Your task to perform on an android device: check battery use Image 0: 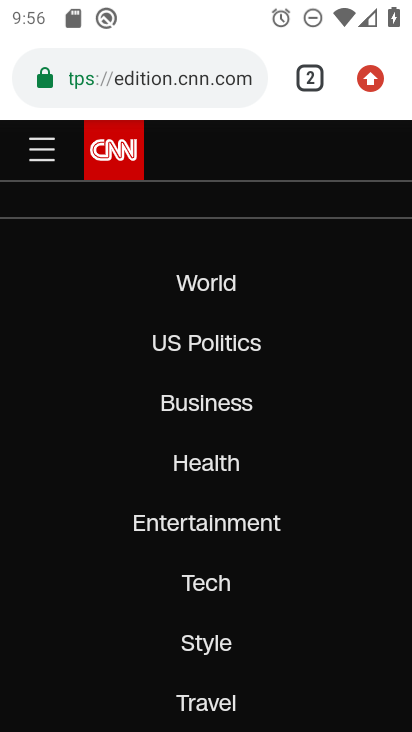
Step 0: press home button
Your task to perform on an android device: check battery use Image 1: 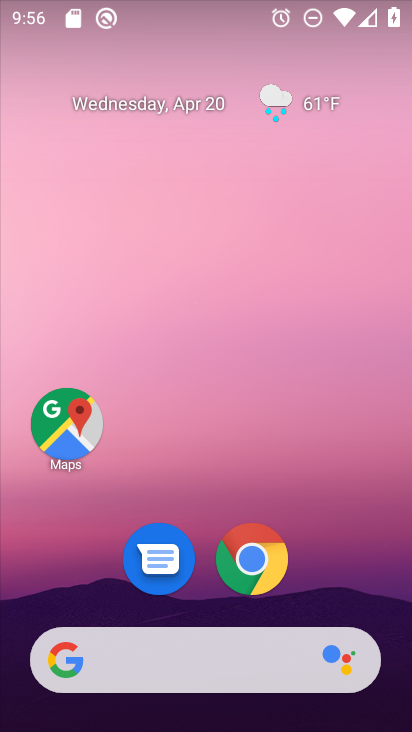
Step 1: drag from (378, 591) to (325, 160)
Your task to perform on an android device: check battery use Image 2: 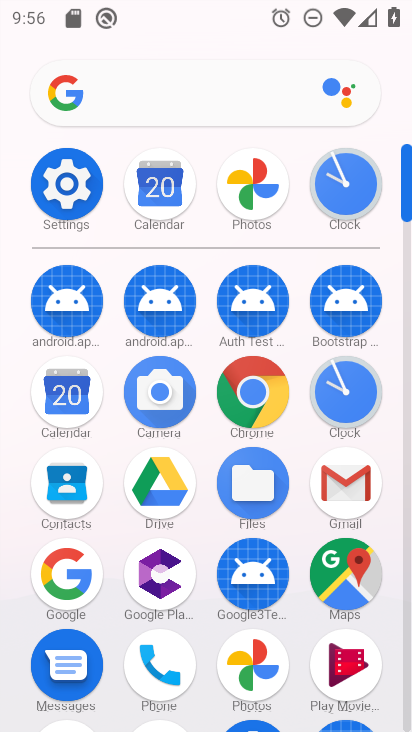
Step 2: click (409, 702)
Your task to perform on an android device: check battery use Image 3: 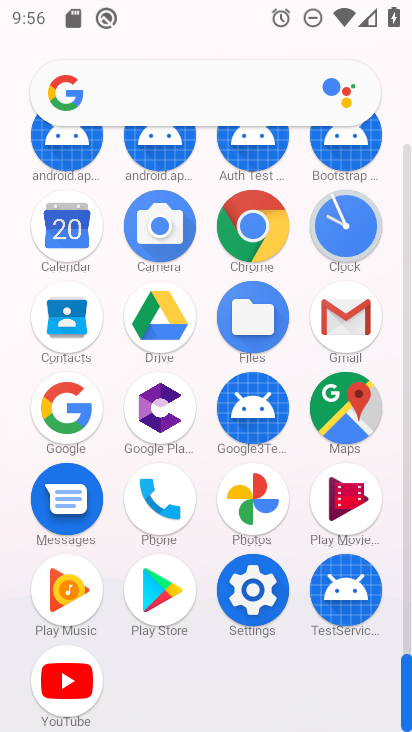
Step 3: click (252, 585)
Your task to perform on an android device: check battery use Image 4: 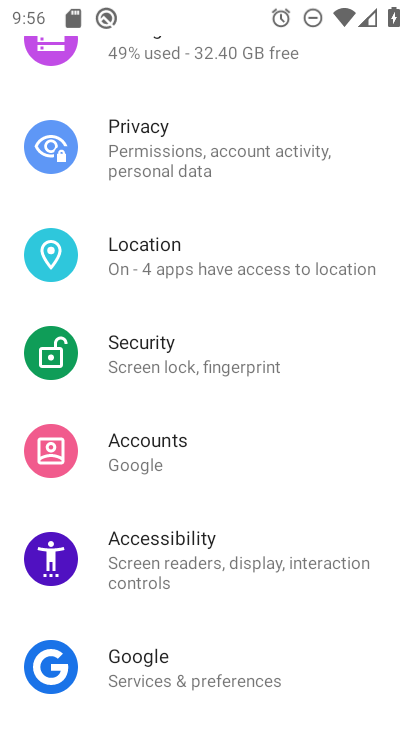
Step 4: drag from (271, 257) to (261, 459)
Your task to perform on an android device: check battery use Image 5: 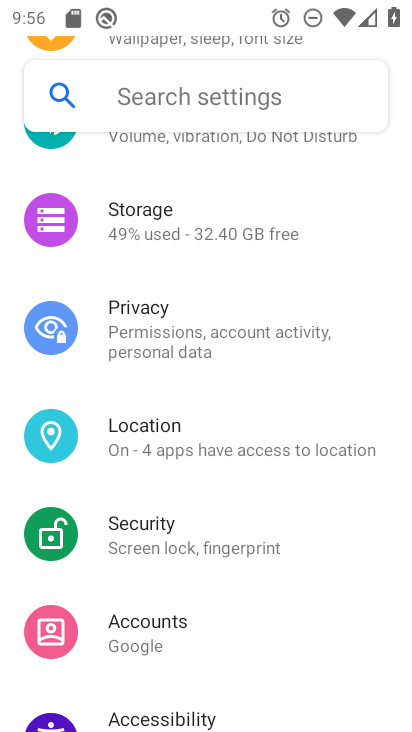
Step 5: drag from (230, 322) to (196, 552)
Your task to perform on an android device: check battery use Image 6: 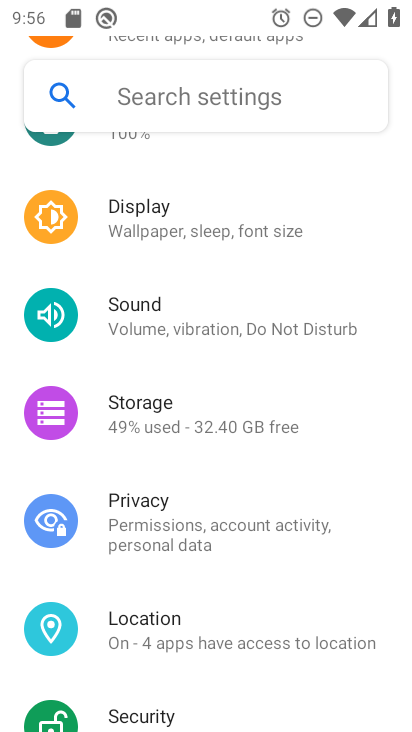
Step 6: drag from (291, 226) to (236, 469)
Your task to perform on an android device: check battery use Image 7: 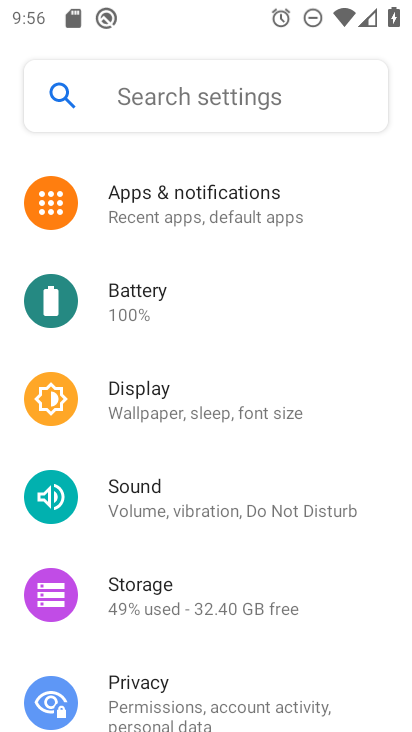
Step 7: click (135, 285)
Your task to perform on an android device: check battery use Image 8: 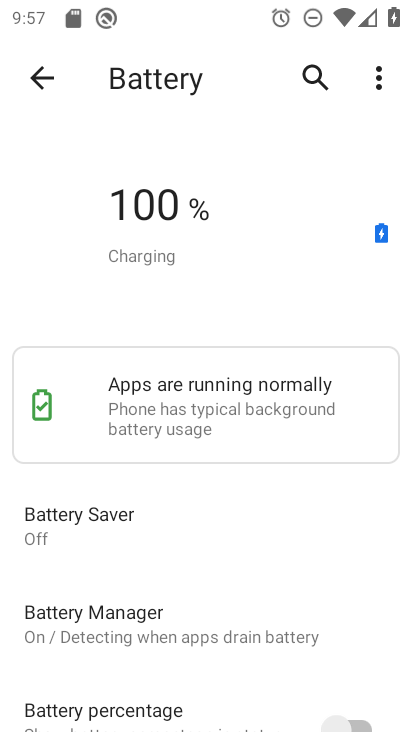
Step 8: click (378, 84)
Your task to perform on an android device: check battery use Image 9: 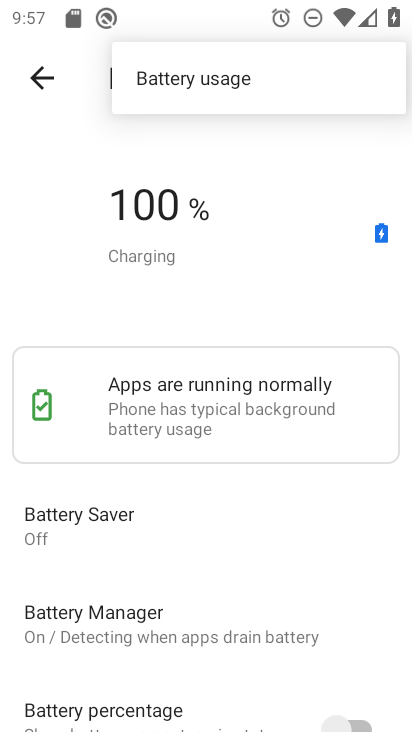
Step 9: click (308, 484)
Your task to perform on an android device: check battery use Image 10: 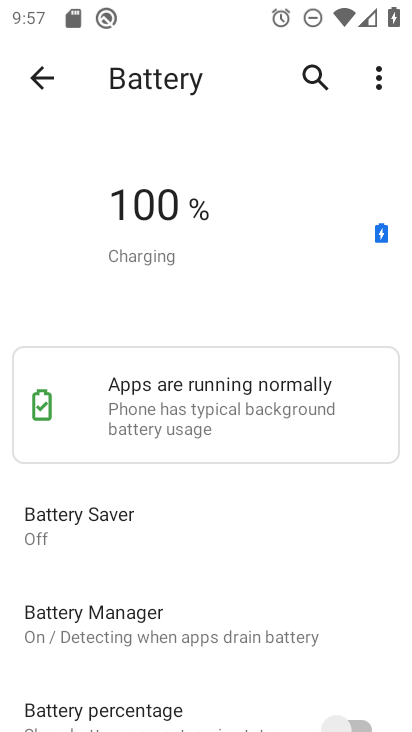
Step 10: click (377, 83)
Your task to perform on an android device: check battery use Image 11: 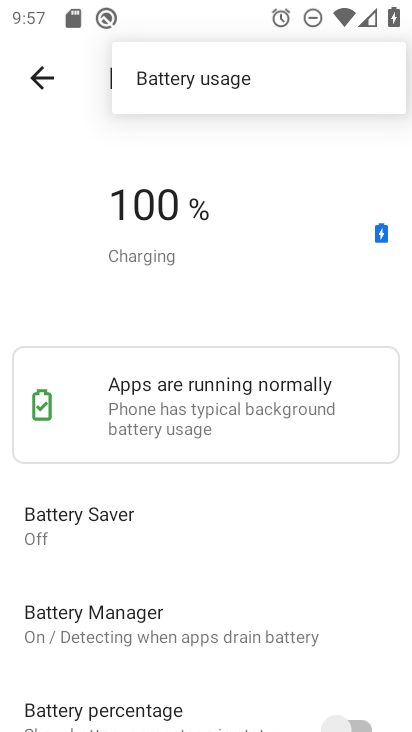
Step 11: click (164, 92)
Your task to perform on an android device: check battery use Image 12: 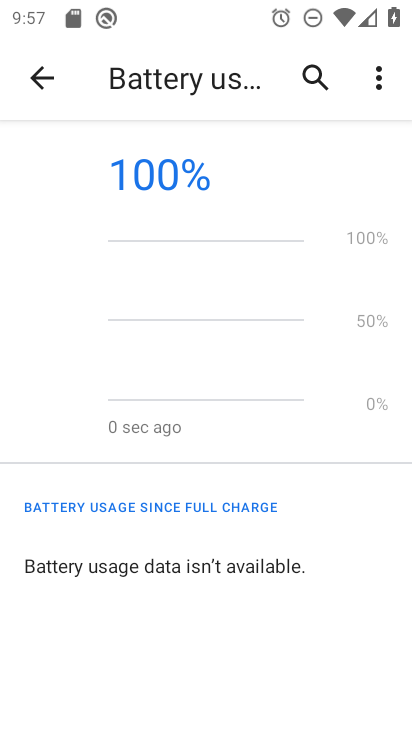
Step 12: task complete